Your task to perform on an android device: Go to wifi settings Image 0: 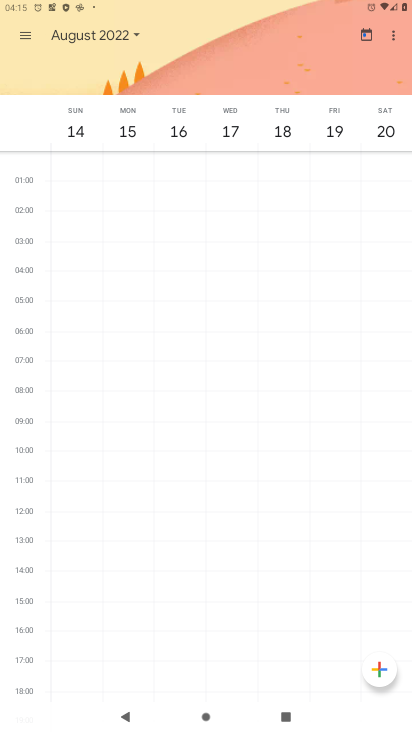
Step 0: press home button
Your task to perform on an android device: Go to wifi settings Image 1: 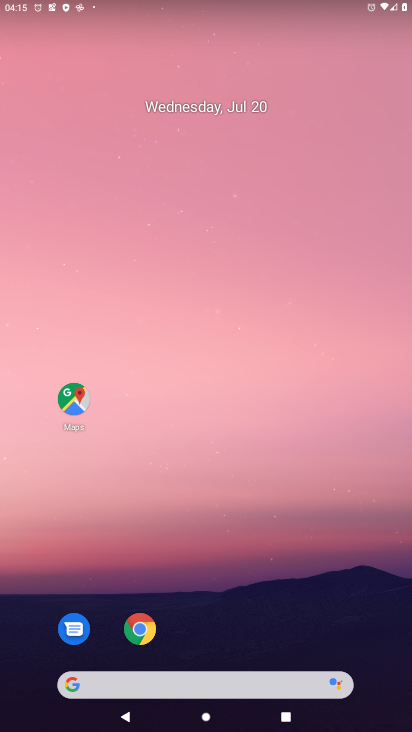
Step 1: drag from (354, 650) to (337, 133)
Your task to perform on an android device: Go to wifi settings Image 2: 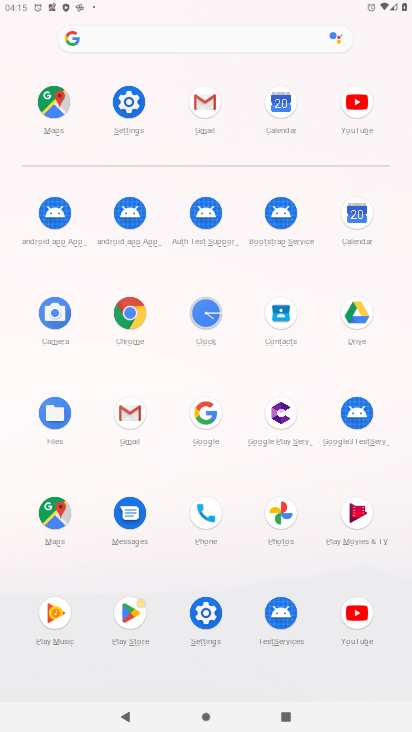
Step 2: click (208, 610)
Your task to perform on an android device: Go to wifi settings Image 3: 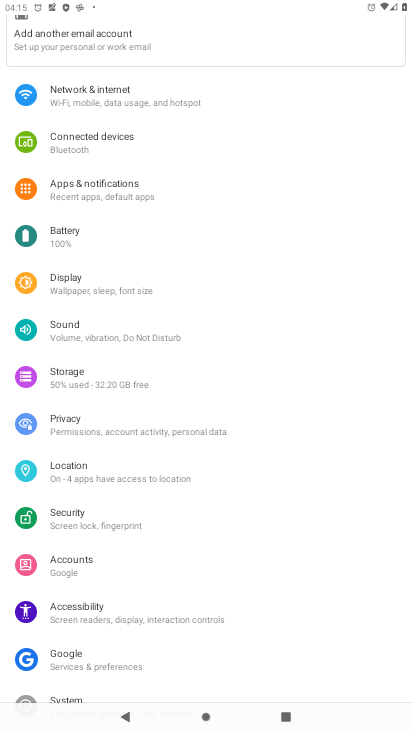
Step 3: click (86, 93)
Your task to perform on an android device: Go to wifi settings Image 4: 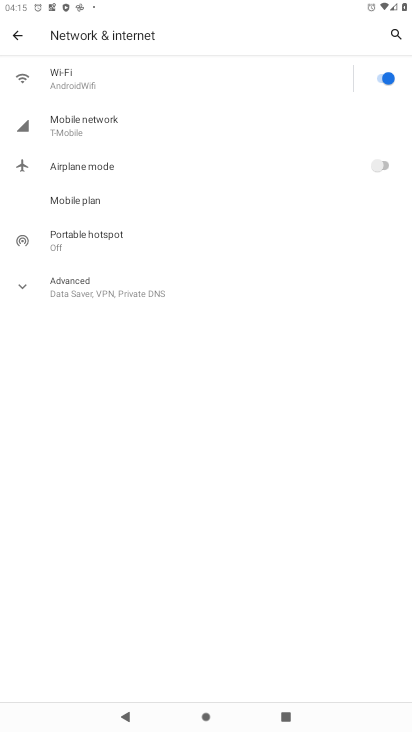
Step 4: click (59, 64)
Your task to perform on an android device: Go to wifi settings Image 5: 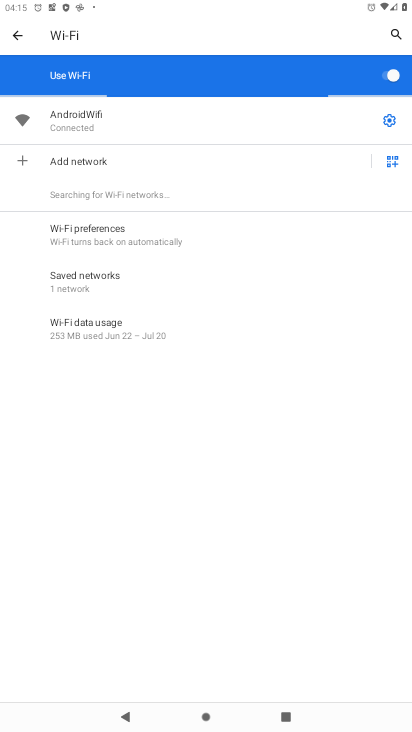
Step 5: task complete